Your task to perform on an android device: Check the news Image 0: 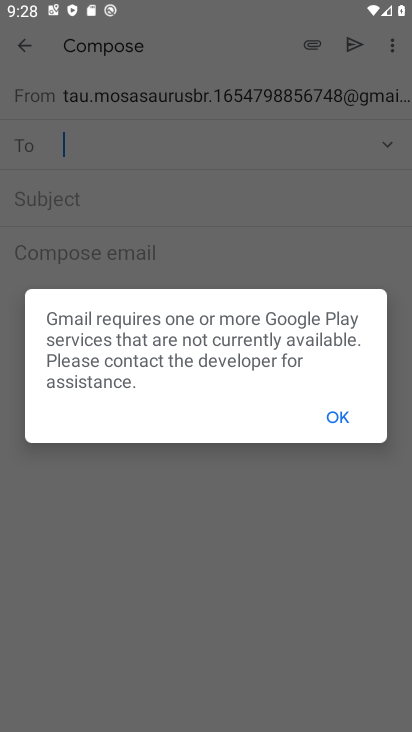
Step 0: press home button
Your task to perform on an android device: Check the news Image 1: 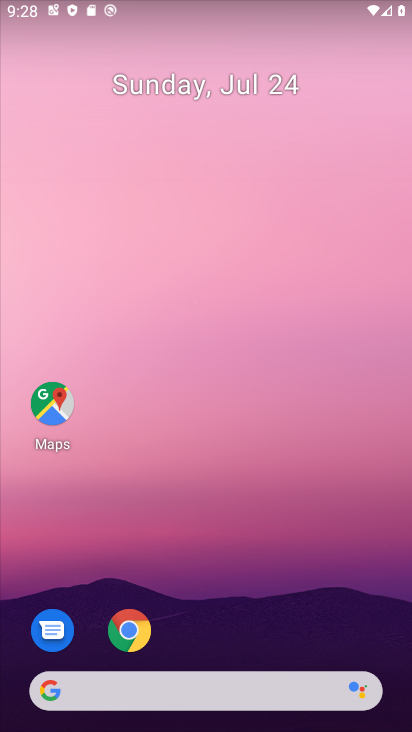
Step 1: drag from (209, 621) to (187, 20)
Your task to perform on an android device: Check the news Image 2: 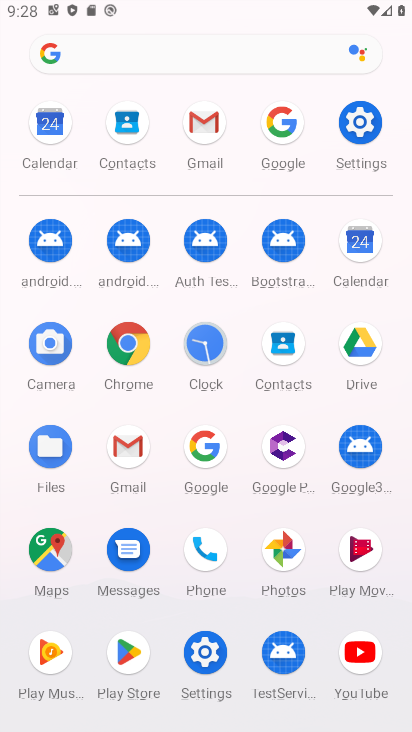
Step 2: click (282, 146)
Your task to perform on an android device: Check the news Image 3: 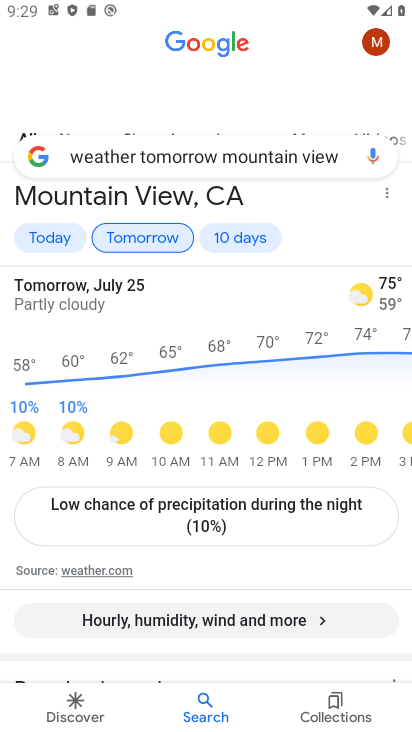
Step 3: click (331, 157)
Your task to perform on an android device: Check the news Image 4: 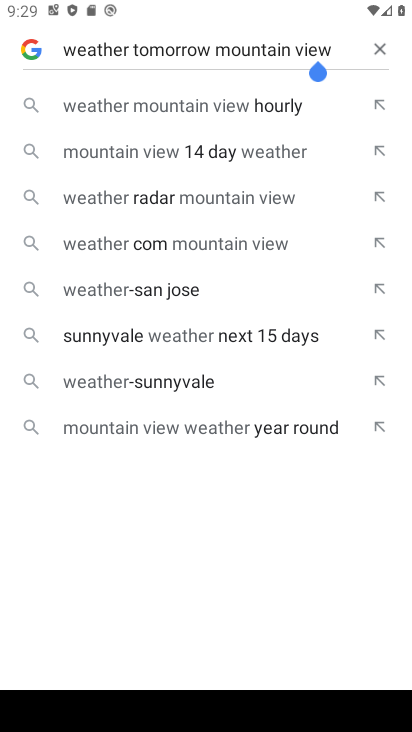
Step 4: click (376, 46)
Your task to perform on an android device: Check the news Image 5: 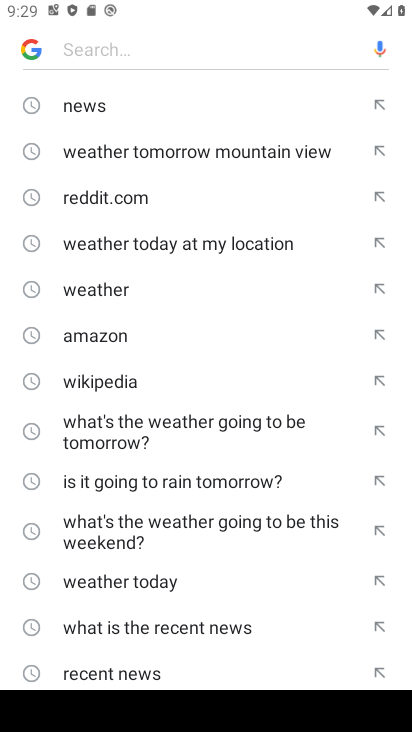
Step 5: click (174, 101)
Your task to perform on an android device: Check the news Image 6: 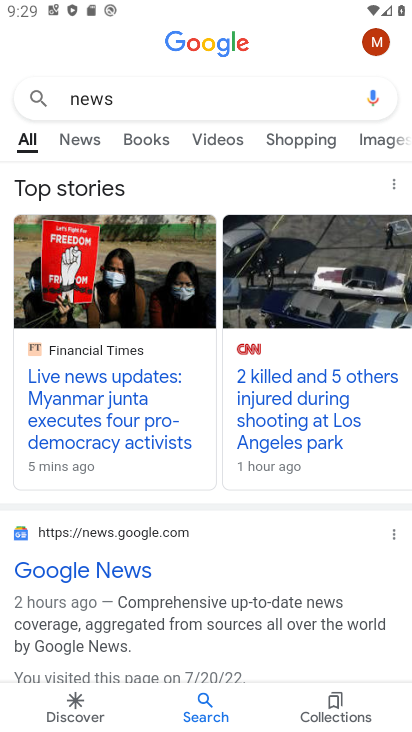
Step 6: click (88, 136)
Your task to perform on an android device: Check the news Image 7: 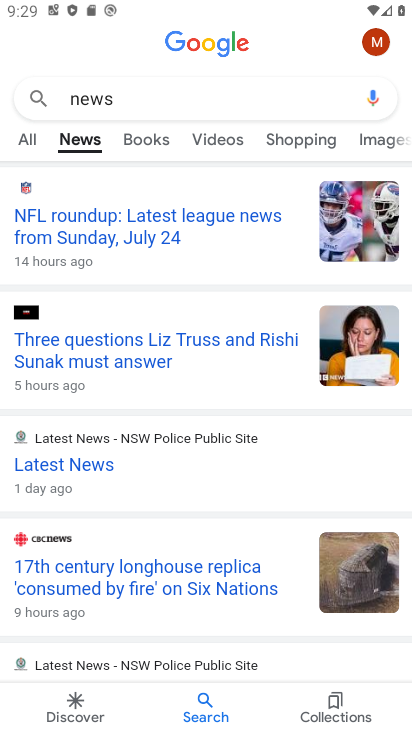
Step 7: task complete